Your task to perform on an android device: check google app version Image 0: 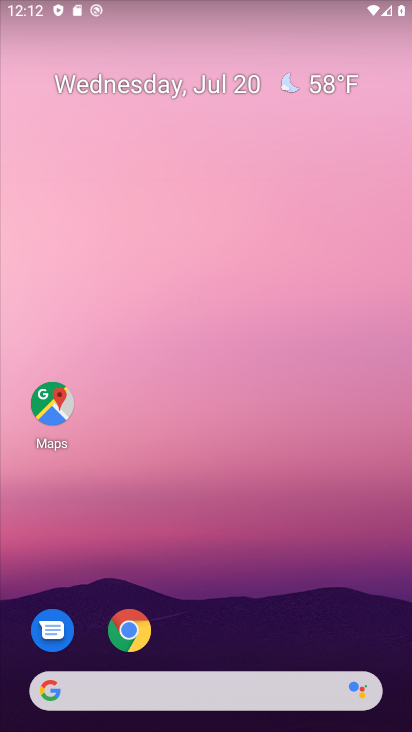
Step 0: drag from (177, 691) to (310, 202)
Your task to perform on an android device: check google app version Image 1: 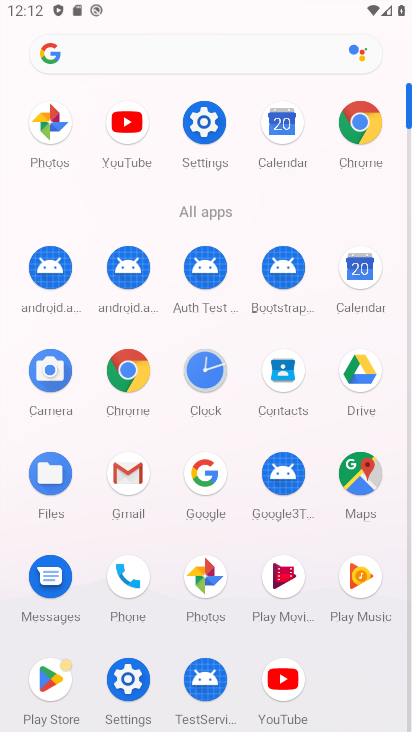
Step 1: click (201, 469)
Your task to perform on an android device: check google app version Image 2: 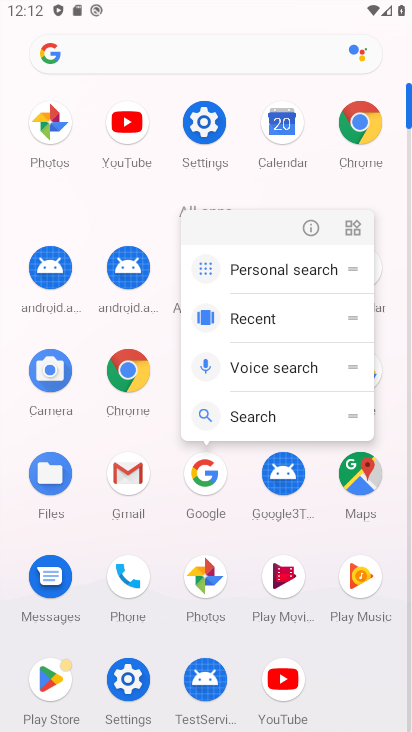
Step 2: click (311, 227)
Your task to perform on an android device: check google app version Image 3: 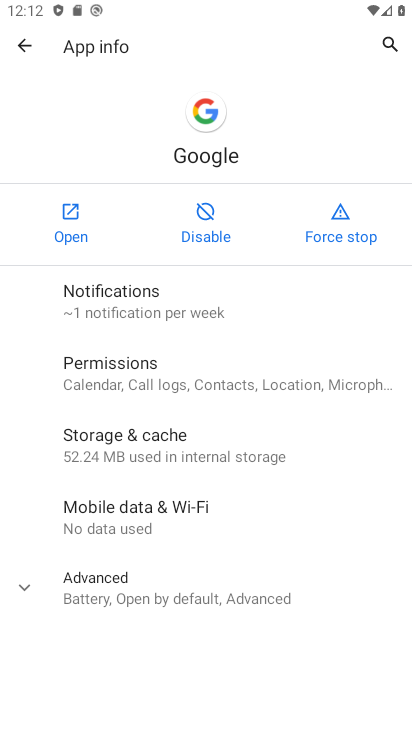
Step 3: click (114, 583)
Your task to perform on an android device: check google app version Image 4: 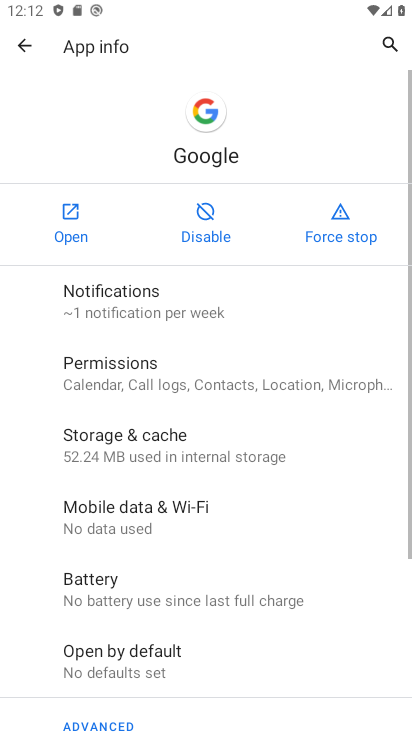
Step 4: task complete